Your task to perform on an android device: Open maps Image 0: 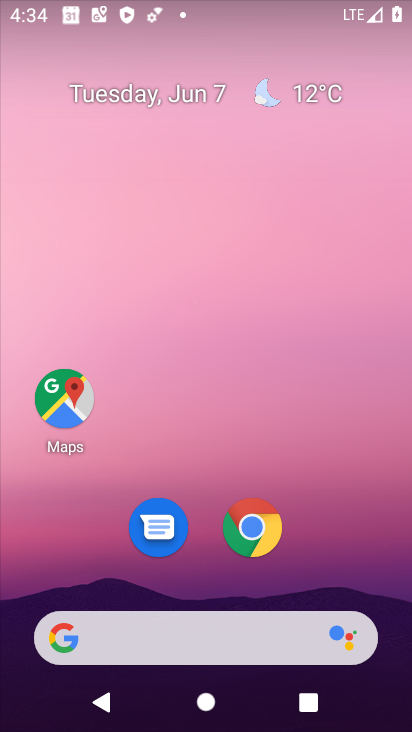
Step 0: click (63, 398)
Your task to perform on an android device: Open maps Image 1: 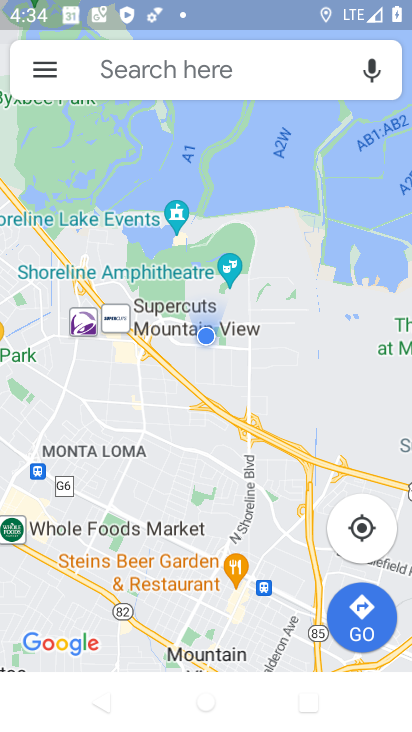
Step 1: task complete